Your task to perform on an android device: Go to settings Image 0: 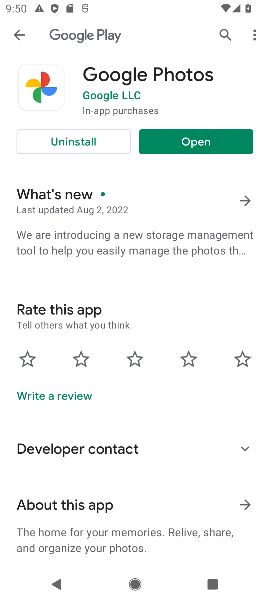
Step 0: press home button
Your task to perform on an android device: Go to settings Image 1: 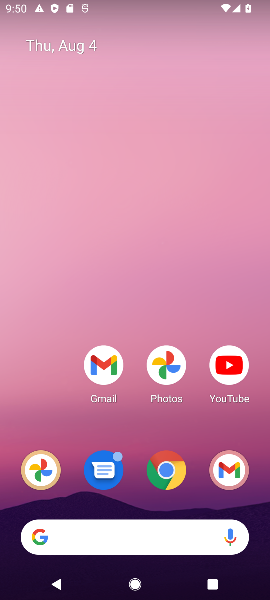
Step 1: drag from (129, 428) to (104, 27)
Your task to perform on an android device: Go to settings Image 2: 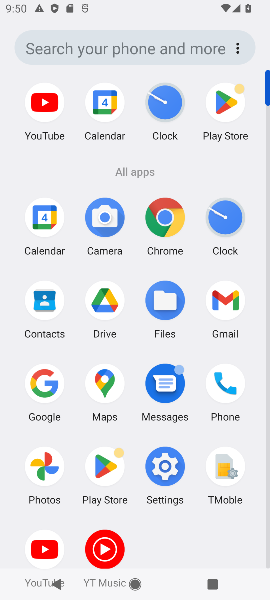
Step 2: click (166, 463)
Your task to perform on an android device: Go to settings Image 3: 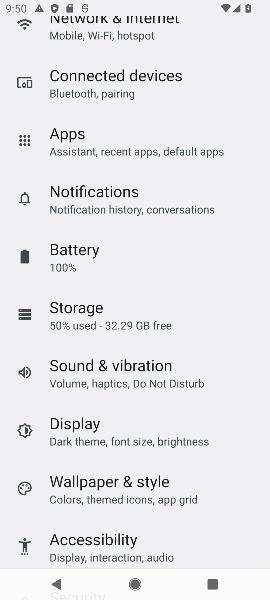
Step 3: task complete